Your task to perform on an android device: Open my contact list Image 0: 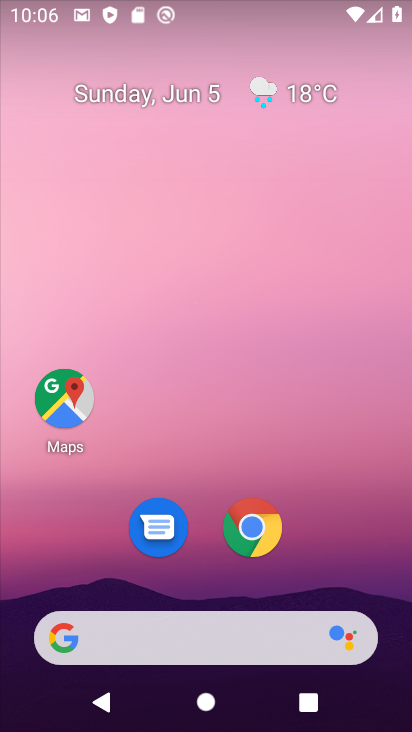
Step 0: drag from (43, 571) to (273, 53)
Your task to perform on an android device: Open my contact list Image 1: 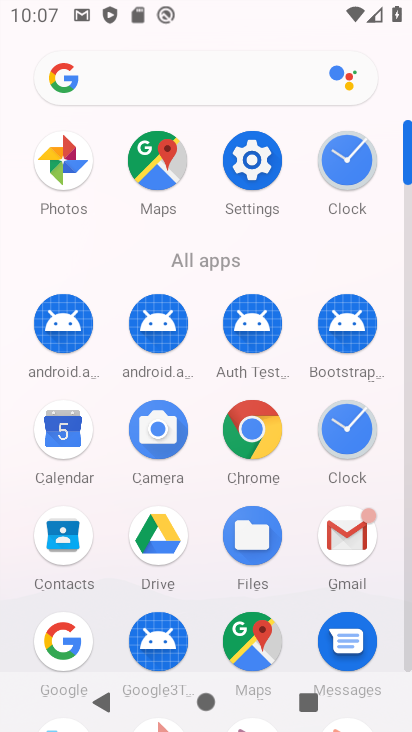
Step 1: drag from (34, 396) to (169, 174)
Your task to perform on an android device: Open my contact list Image 2: 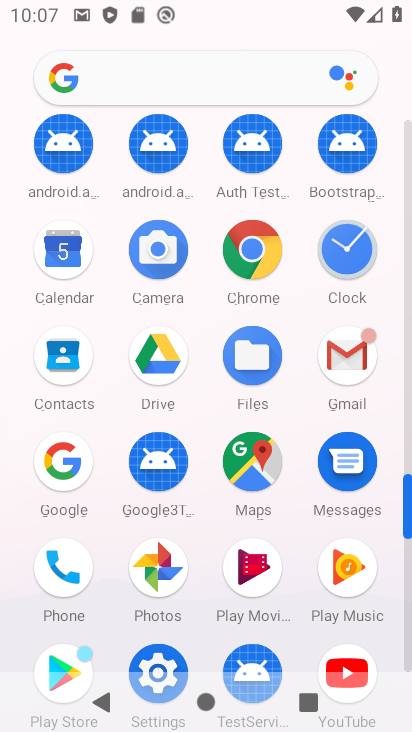
Step 2: click (55, 565)
Your task to perform on an android device: Open my contact list Image 3: 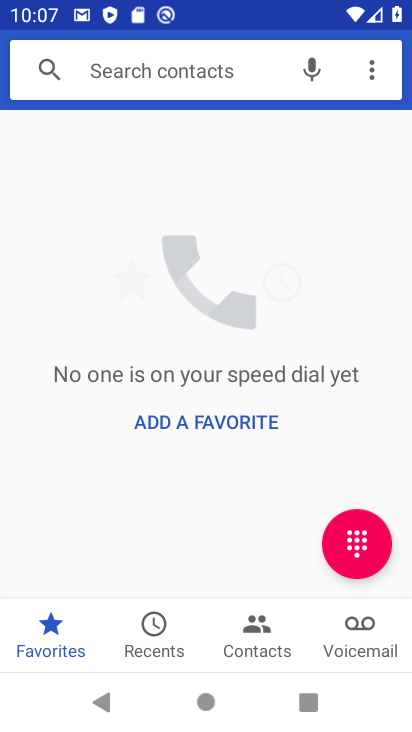
Step 3: click (251, 634)
Your task to perform on an android device: Open my contact list Image 4: 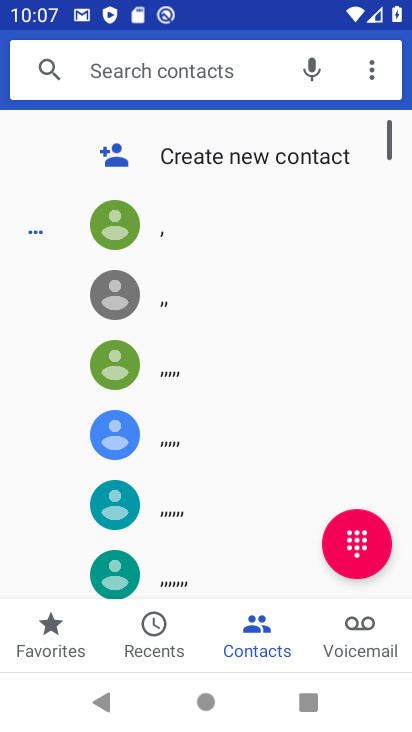
Step 4: task complete